Your task to perform on an android device: Show me the alarms in the clock app Image 0: 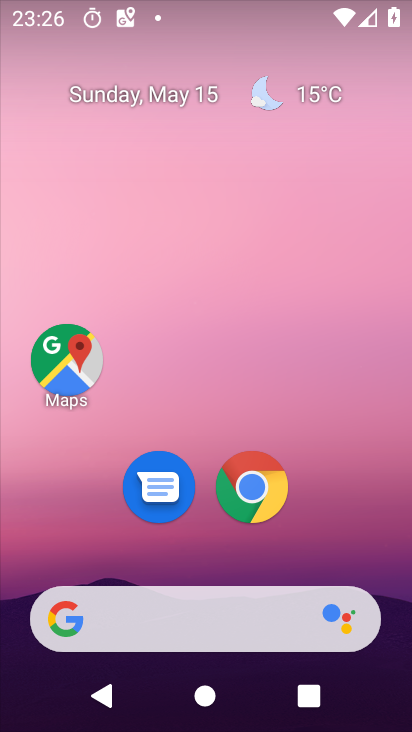
Step 0: drag from (395, 650) to (408, 179)
Your task to perform on an android device: Show me the alarms in the clock app Image 1: 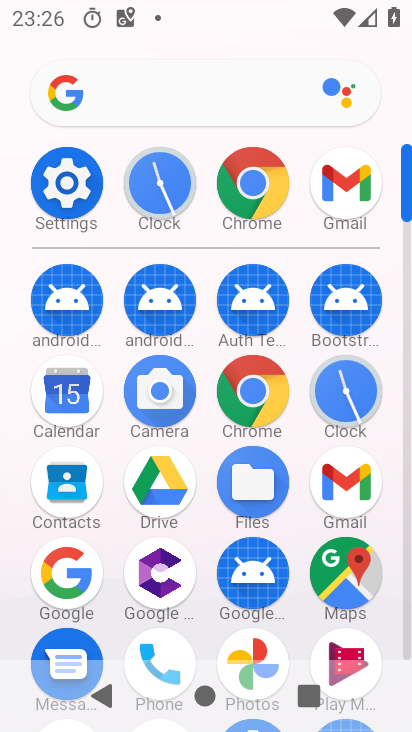
Step 1: click (333, 401)
Your task to perform on an android device: Show me the alarms in the clock app Image 2: 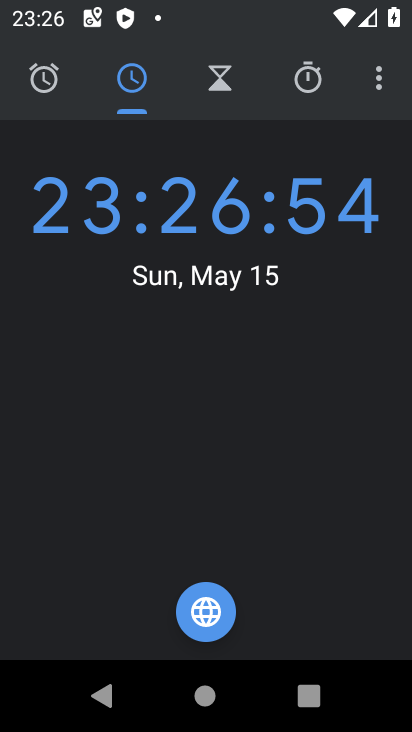
Step 2: click (37, 66)
Your task to perform on an android device: Show me the alarms in the clock app Image 3: 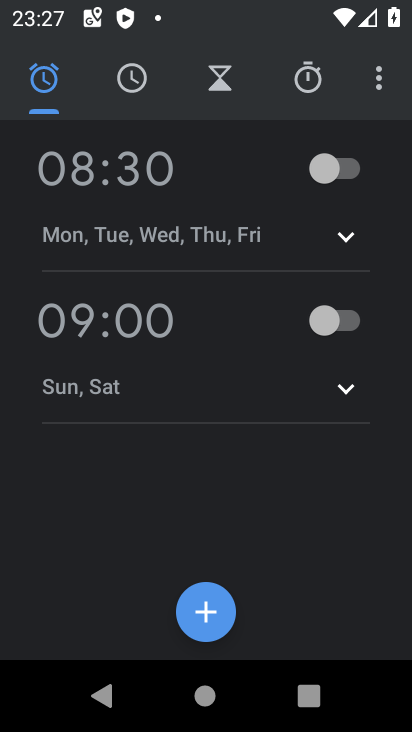
Step 3: task complete